Your task to perform on an android device: Go to Reddit.com Image 0: 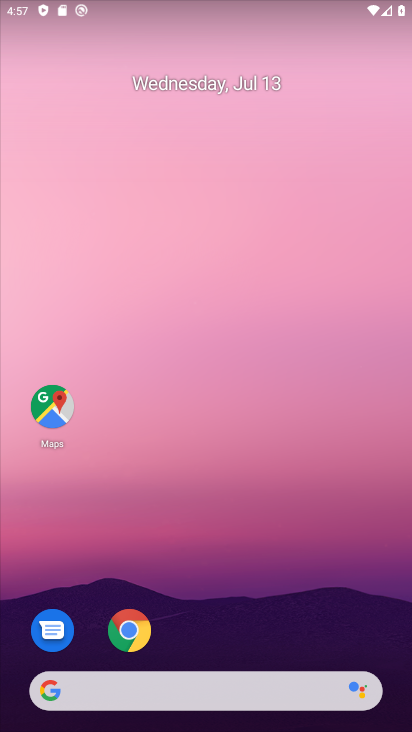
Step 0: click (131, 630)
Your task to perform on an android device: Go to Reddit.com Image 1: 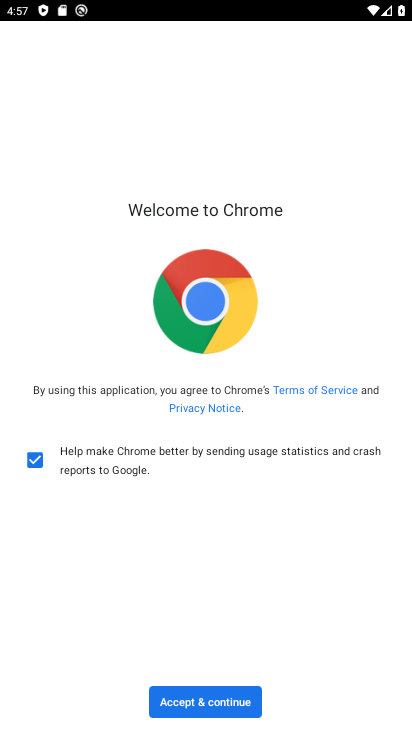
Step 1: click (195, 702)
Your task to perform on an android device: Go to Reddit.com Image 2: 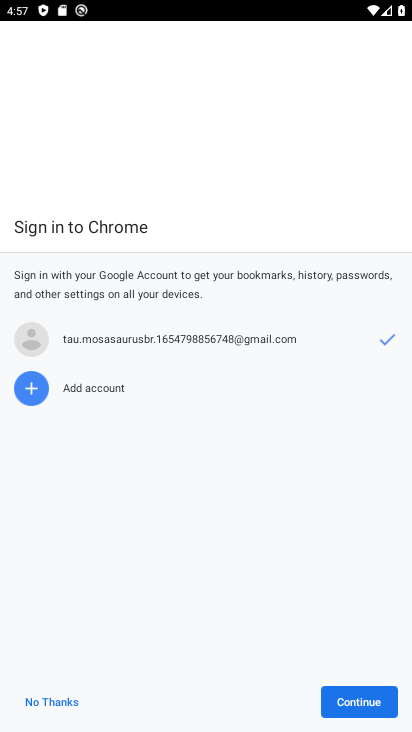
Step 2: click (346, 713)
Your task to perform on an android device: Go to Reddit.com Image 3: 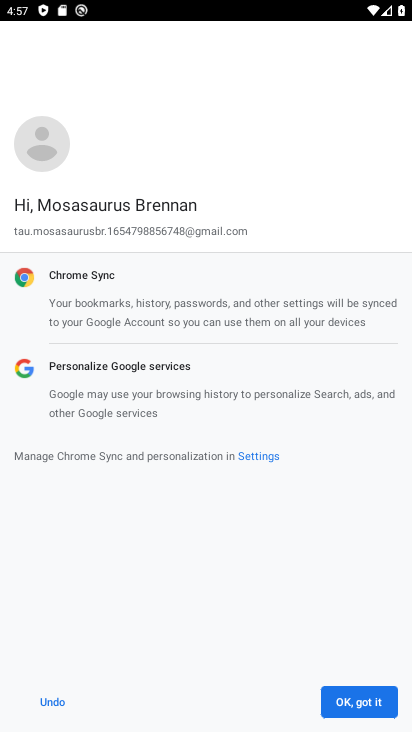
Step 3: click (347, 705)
Your task to perform on an android device: Go to Reddit.com Image 4: 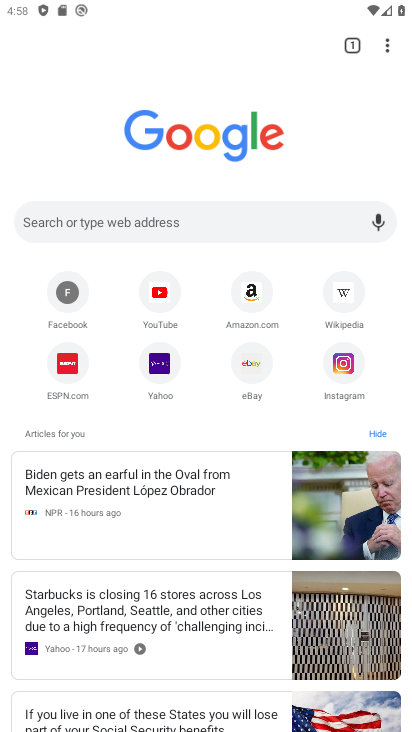
Step 4: click (124, 220)
Your task to perform on an android device: Go to Reddit.com Image 5: 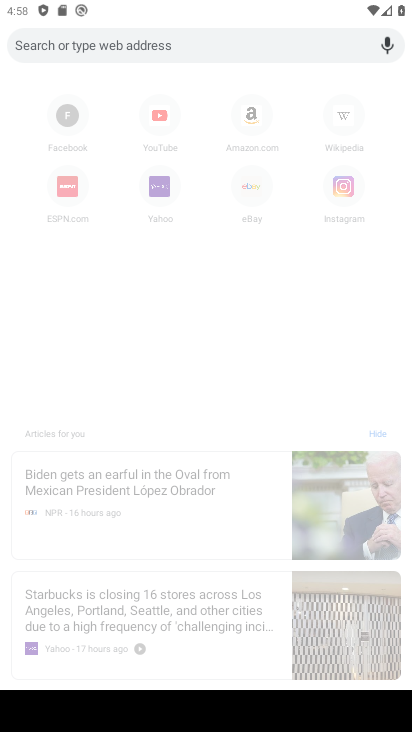
Step 5: type "www.reddit.com"
Your task to perform on an android device: Go to Reddit.com Image 6: 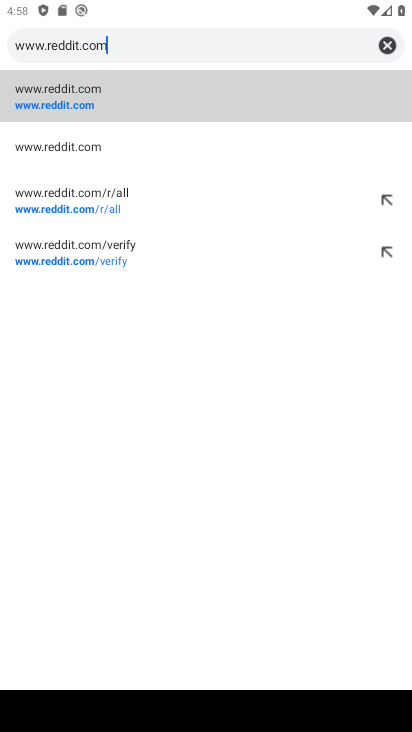
Step 6: click (47, 106)
Your task to perform on an android device: Go to Reddit.com Image 7: 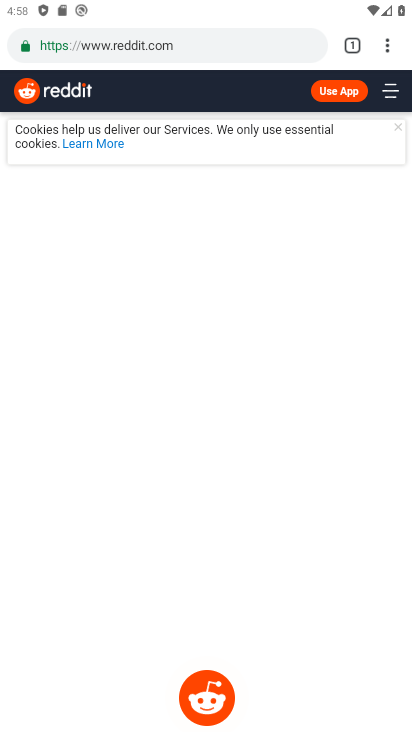
Step 7: task complete